Your task to perform on an android device: turn pop-ups on in chrome Image 0: 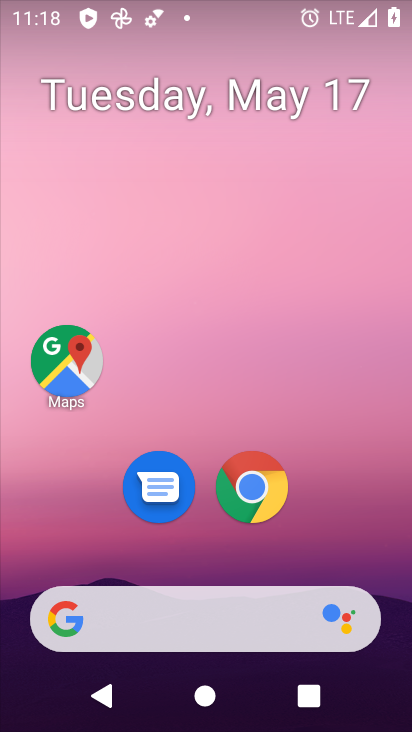
Step 0: press home button
Your task to perform on an android device: turn pop-ups on in chrome Image 1: 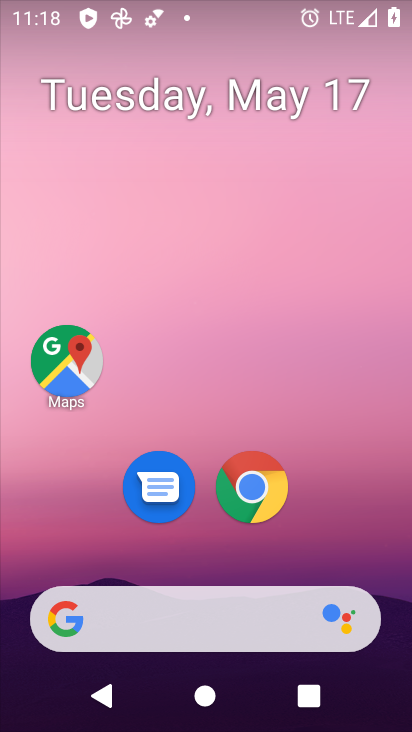
Step 1: click (275, 494)
Your task to perform on an android device: turn pop-ups on in chrome Image 2: 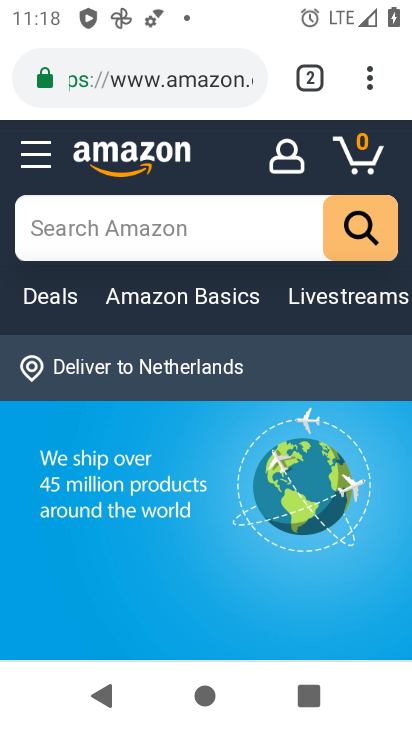
Step 2: drag from (372, 58) to (109, 561)
Your task to perform on an android device: turn pop-ups on in chrome Image 3: 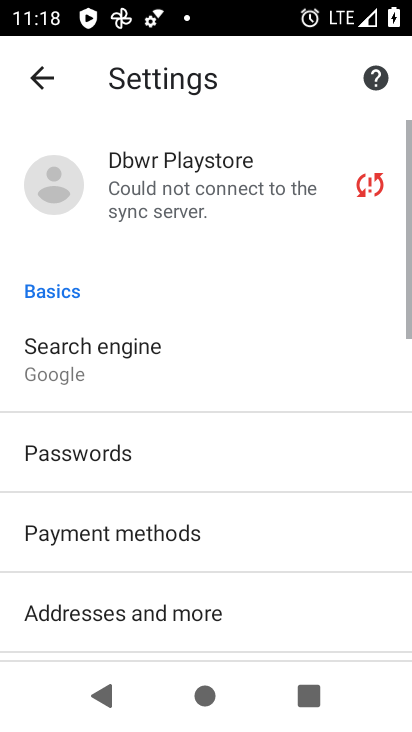
Step 3: drag from (230, 560) to (306, 159)
Your task to perform on an android device: turn pop-ups on in chrome Image 4: 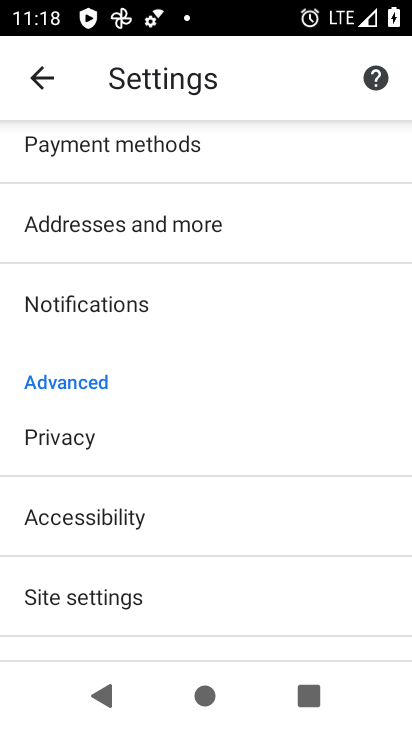
Step 4: click (215, 614)
Your task to perform on an android device: turn pop-ups on in chrome Image 5: 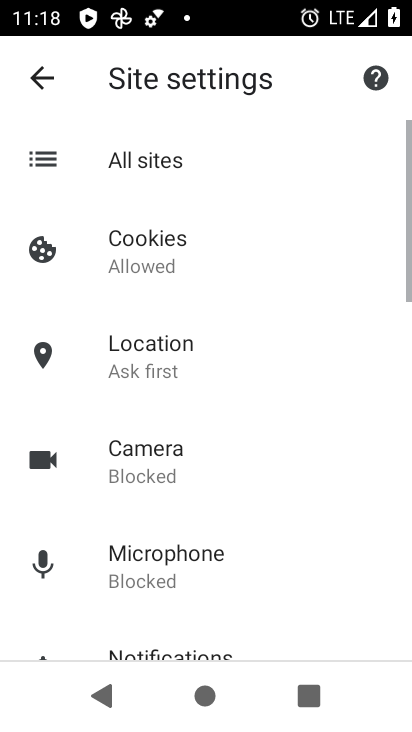
Step 5: drag from (215, 614) to (160, 204)
Your task to perform on an android device: turn pop-ups on in chrome Image 6: 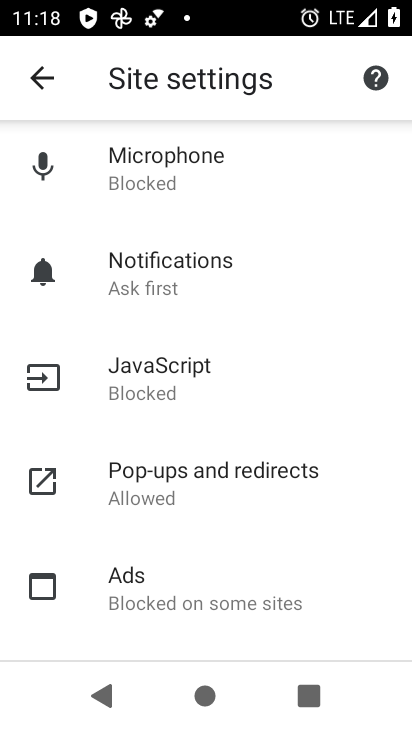
Step 6: click (174, 486)
Your task to perform on an android device: turn pop-ups on in chrome Image 7: 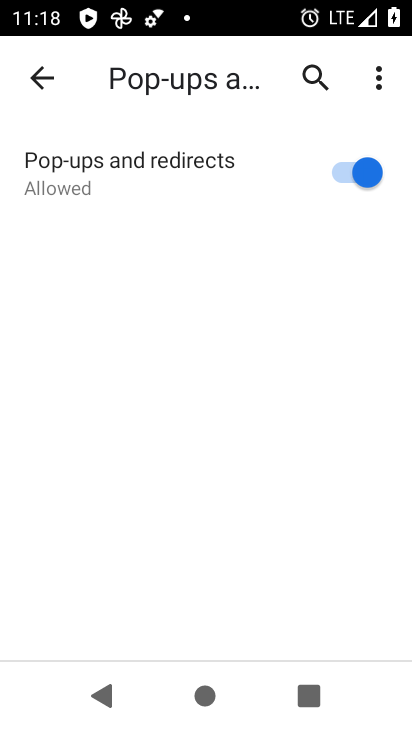
Step 7: click (272, 193)
Your task to perform on an android device: turn pop-ups on in chrome Image 8: 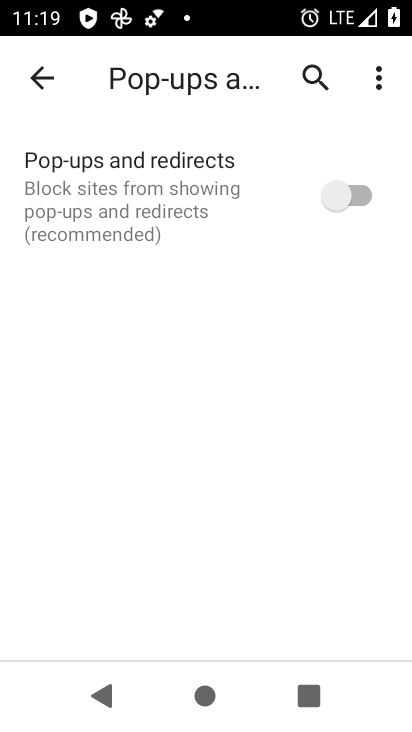
Step 8: click (306, 188)
Your task to perform on an android device: turn pop-ups on in chrome Image 9: 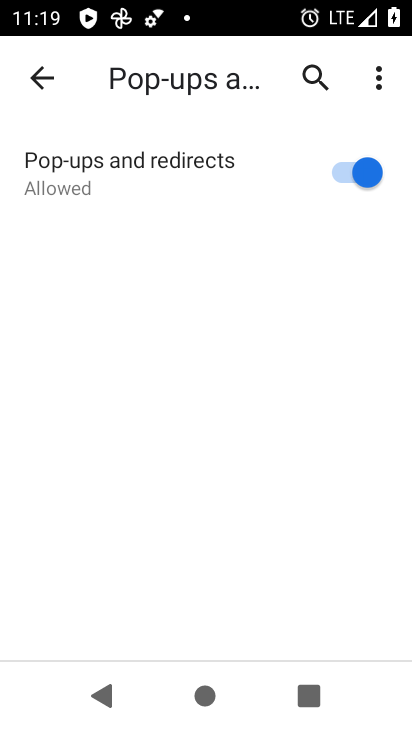
Step 9: task complete